Your task to perform on an android device: check data usage Image 0: 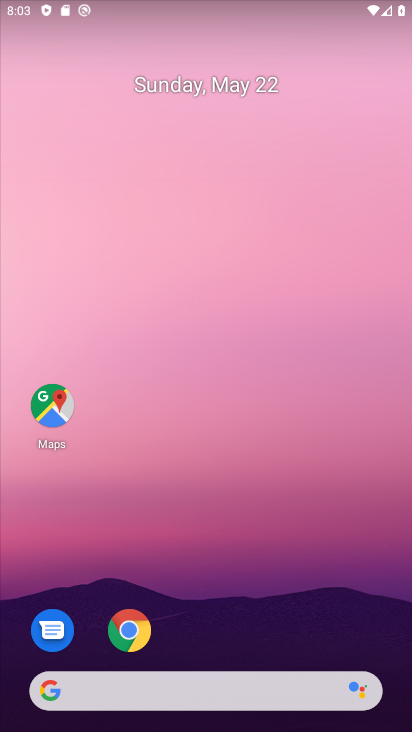
Step 0: drag from (265, 624) to (372, 3)
Your task to perform on an android device: check data usage Image 1: 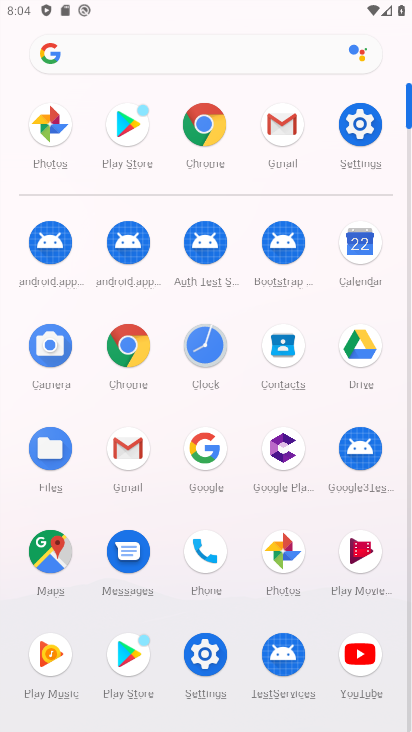
Step 1: click (353, 131)
Your task to perform on an android device: check data usage Image 2: 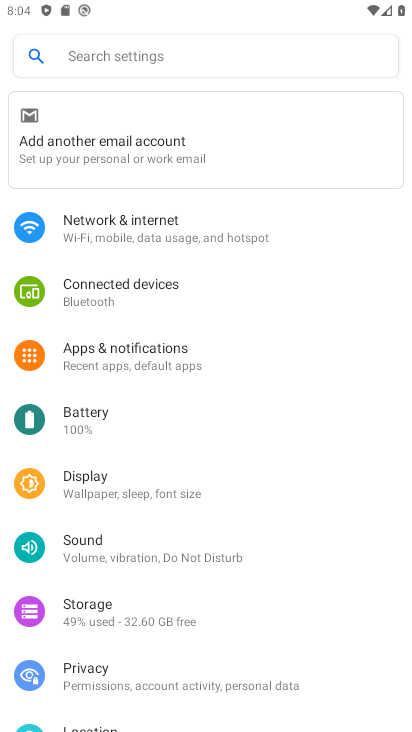
Step 2: click (184, 222)
Your task to perform on an android device: check data usage Image 3: 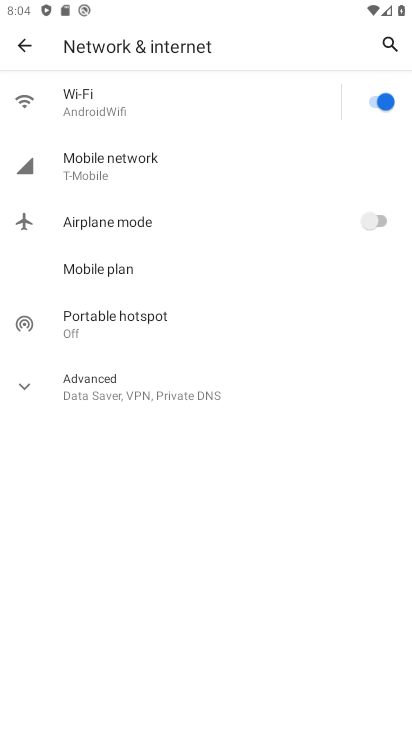
Step 3: task complete